Your task to perform on an android device: Open Yahoo.com Image 0: 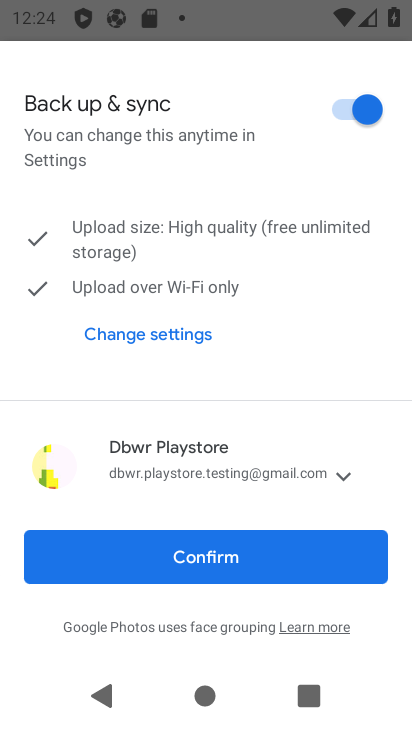
Step 0: click (303, 552)
Your task to perform on an android device: Open Yahoo.com Image 1: 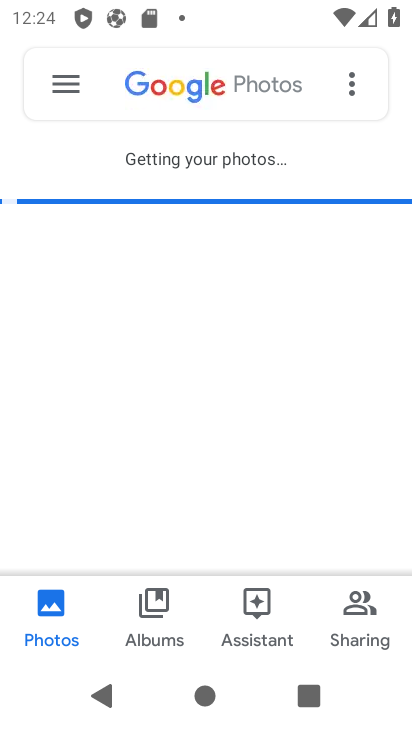
Step 1: press home button
Your task to perform on an android device: Open Yahoo.com Image 2: 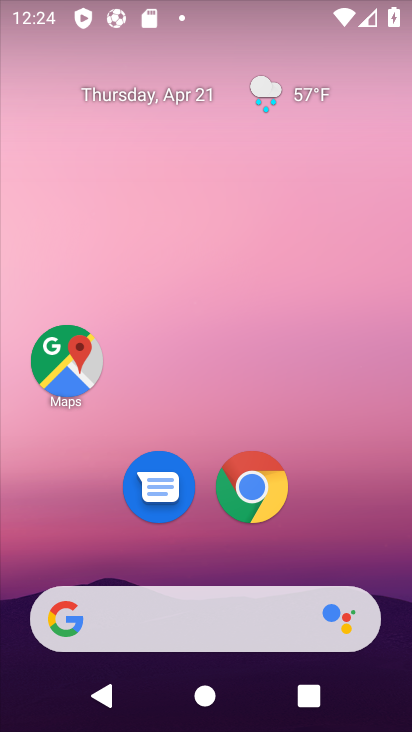
Step 2: drag from (378, 528) to (381, 128)
Your task to perform on an android device: Open Yahoo.com Image 3: 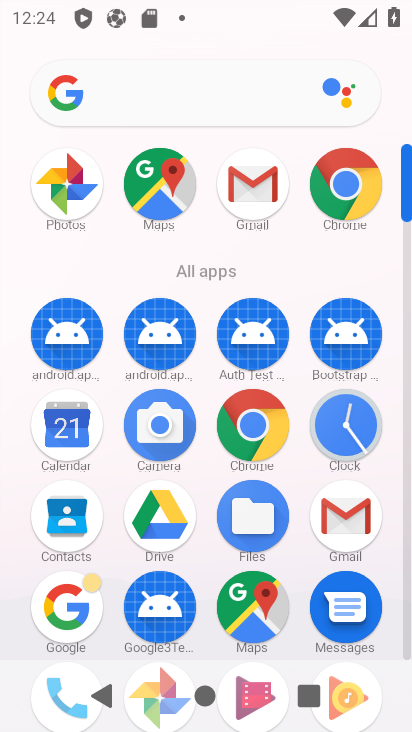
Step 3: drag from (290, 464) to (304, 274)
Your task to perform on an android device: Open Yahoo.com Image 4: 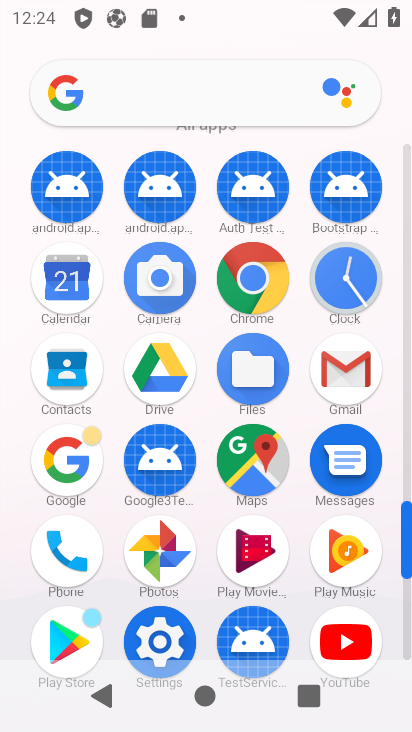
Step 4: click (261, 287)
Your task to perform on an android device: Open Yahoo.com Image 5: 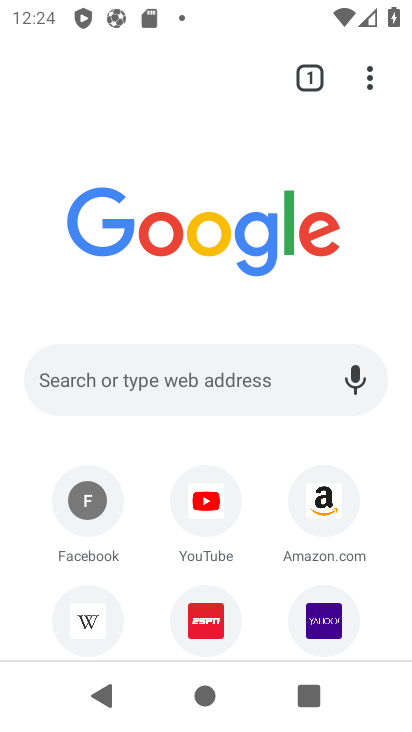
Step 5: click (155, 376)
Your task to perform on an android device: Open Yahoo.com Image 6: 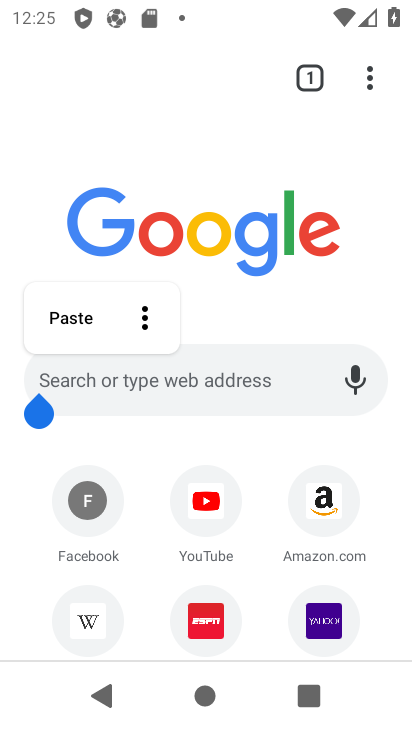
Step 6: click (330, 619)
Your task to perform on an android device: Open Yahoo.com Image 7: 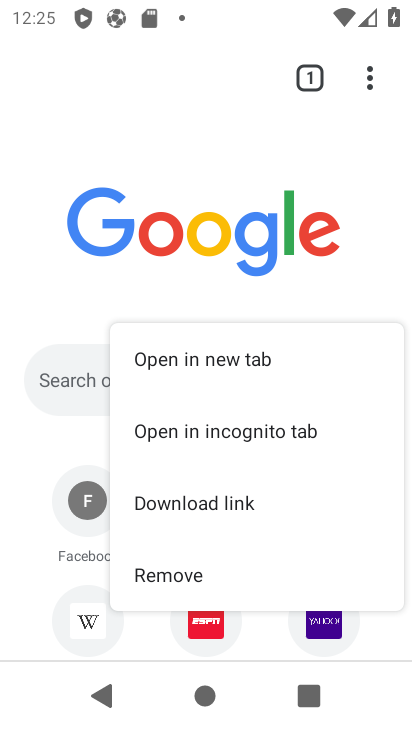
Step 7: click (323, 635)
Your task to perform on an android device: Open Yahoo.com Image 8: 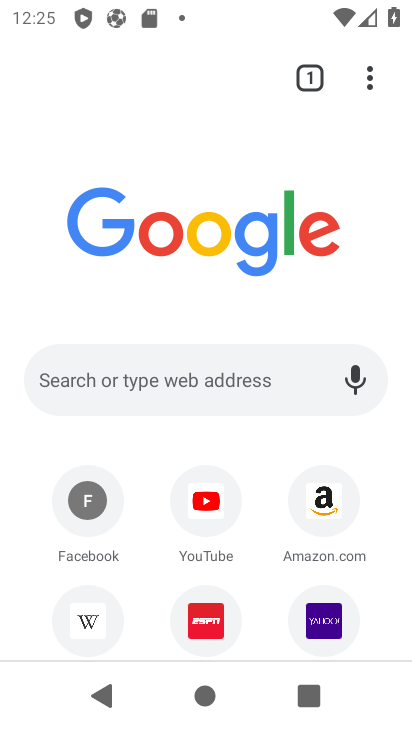
Step 8: click (327, 618)
Your task to perform on an android device: Open Yahoo.com Image 9: 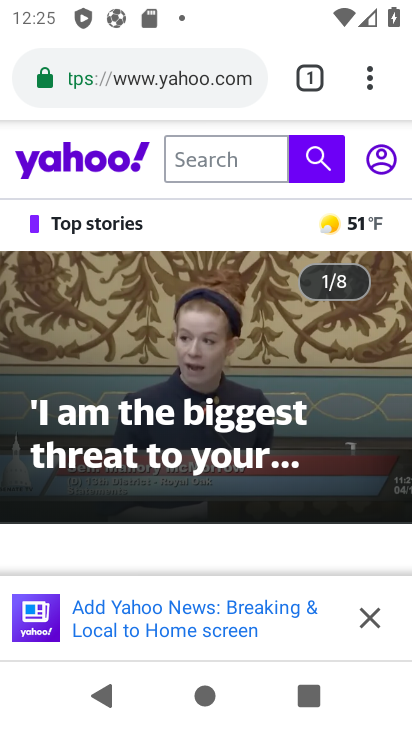
Step 9: task complete